Your task to perform on an android device: Search for Mexican restaurants on Maps Image 0: 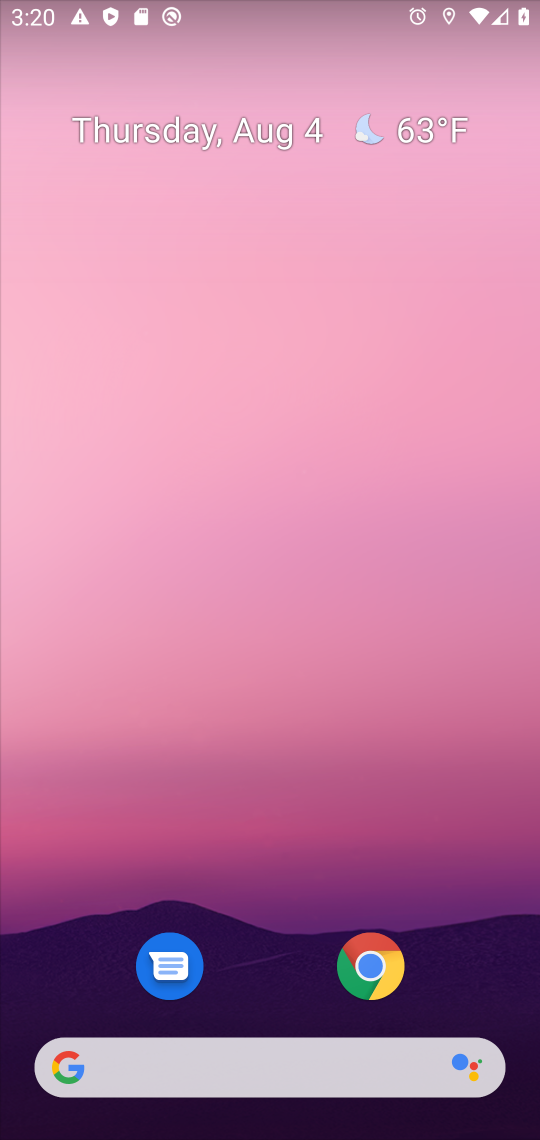
Step 0: press home button
Your task to perform on an android device: Search for Mexican restaurants on Maps Image 1: 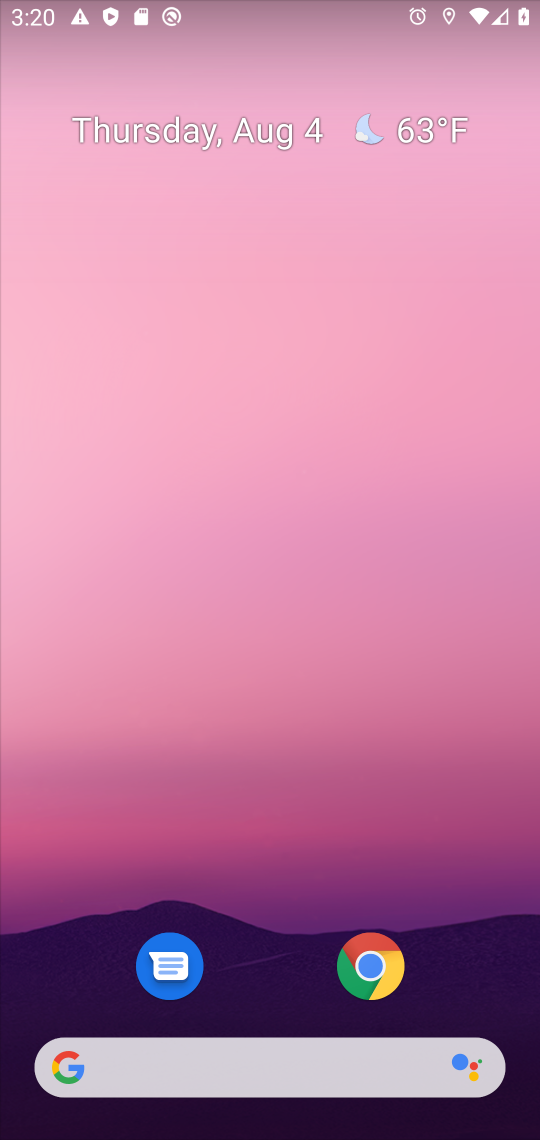
Step 1: drag from (263, 791) to (239, 300)
Your task to perform on an android device: Search for Mexican restaurants on Maps Image 2: 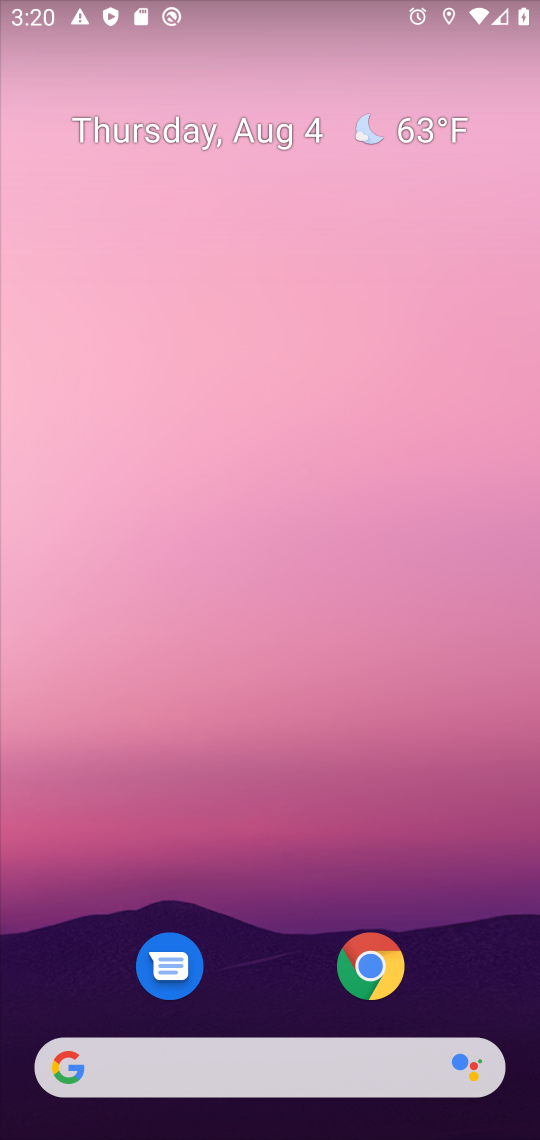
Step 2: drag from (252, 968) to (243, 155)
Your task to perform on an android device: Search for Mexican restaurants on Maps Image 3: 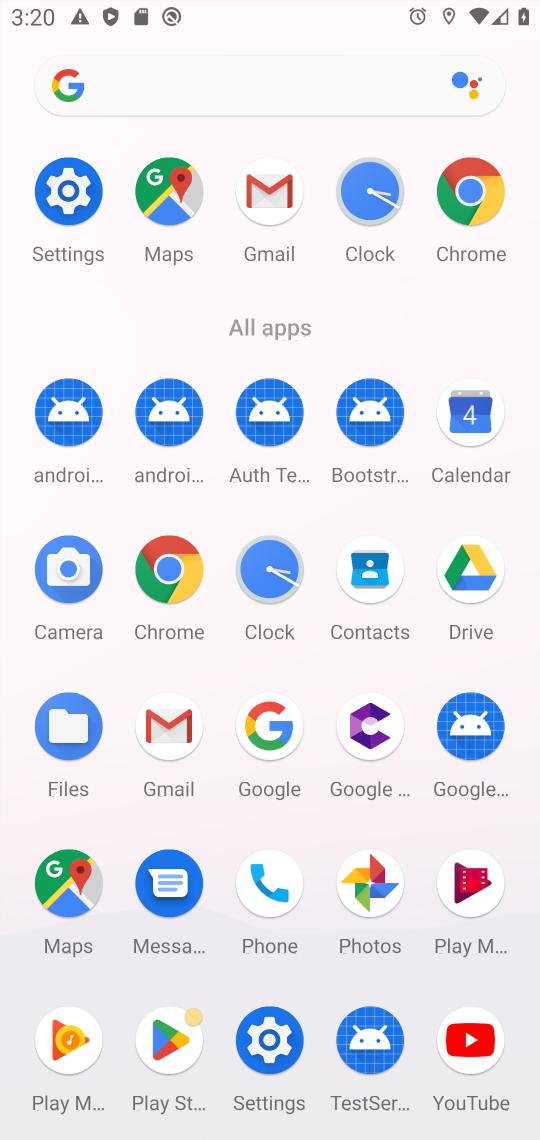
Step 3: click (156, 184)
Your task to perform on an android device: Search for Mexican restaurants on Maps Image 4: 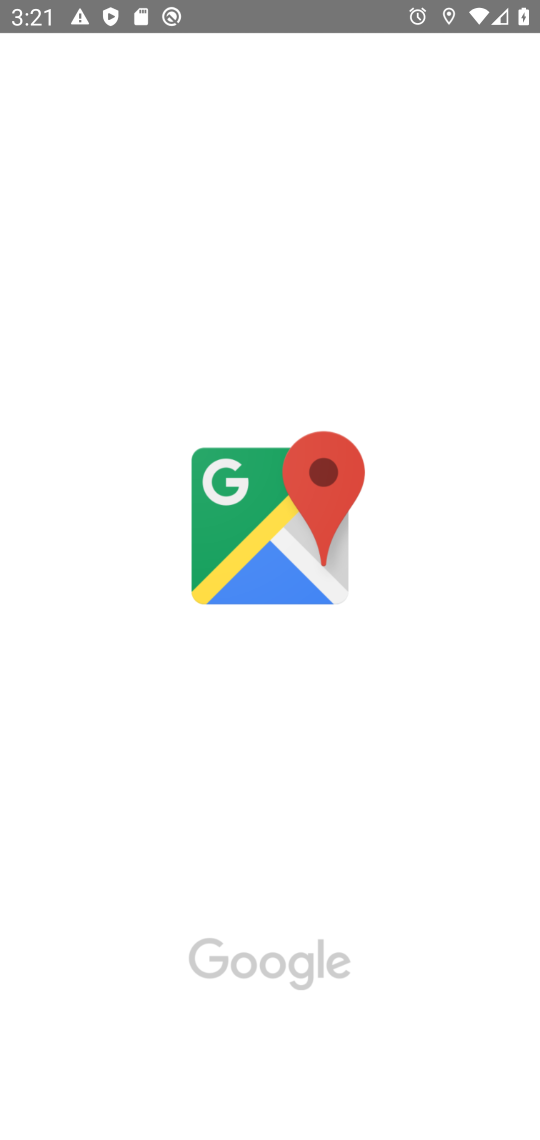
Step 4: task complete